Your task to perform on an android device: Open Yahoo.com Image 0: 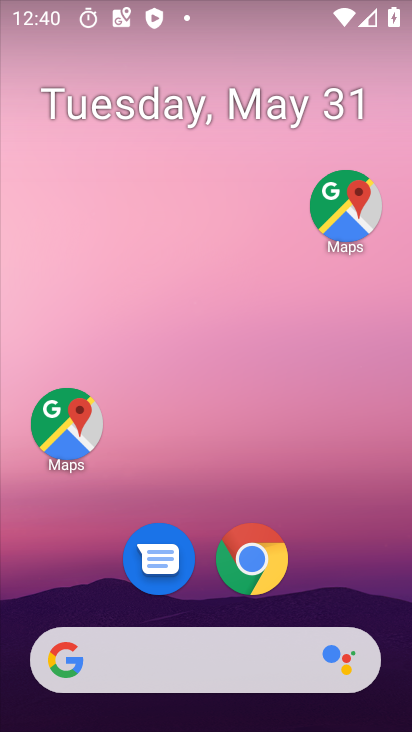
Step 0: click (242, 564)
Your task to perform on an android device: Open Yahoo.com Image 1: 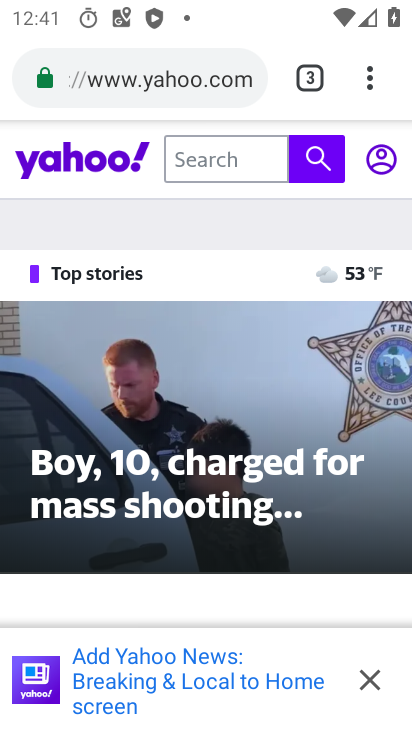
Step 1: task complete